Your task to perform on an android device: Open notification settings Image 0: 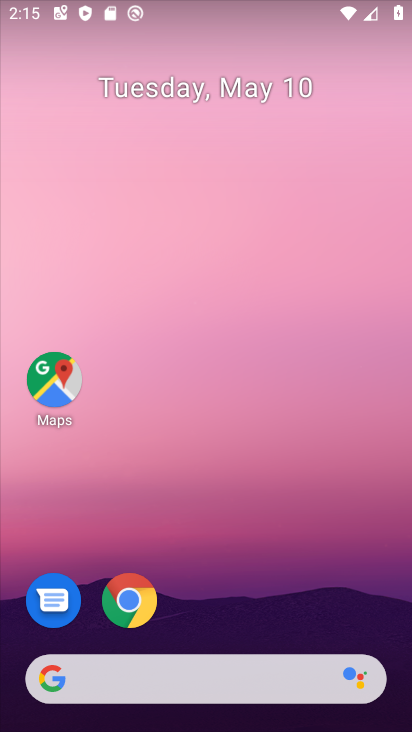
Step 0: drag from (226, 618) to (280, 167)
Your task to perform on an android device: Open notification settings Image 1: 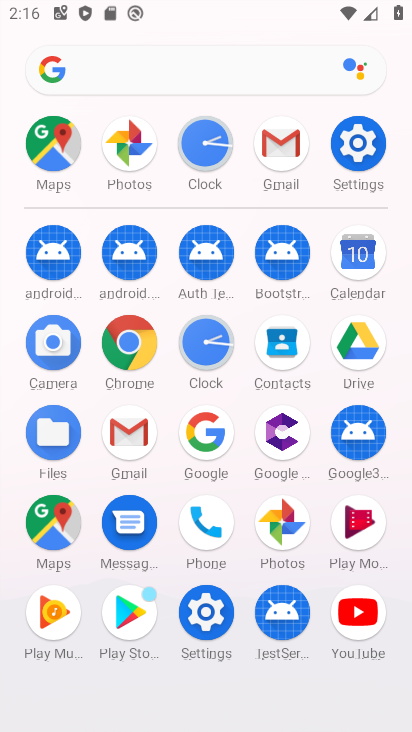
Step 1: click (374, 154)
Your task to perform on an android device: Open notification settings Image 2: 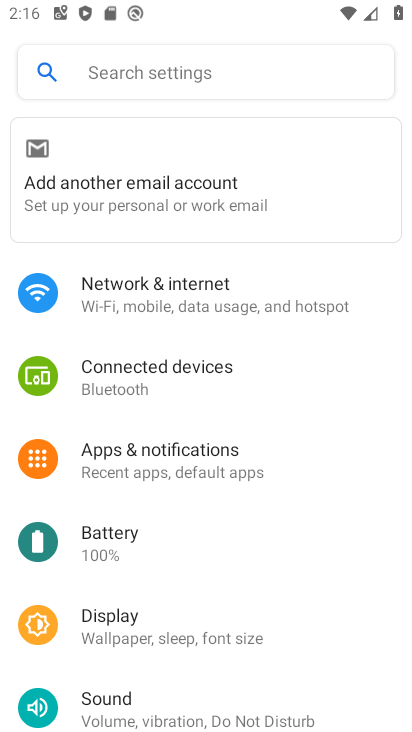
Step 2: drag from (141, 560) to (159, 390)
Your task to perform on an android device: Open notification settings Image 3: 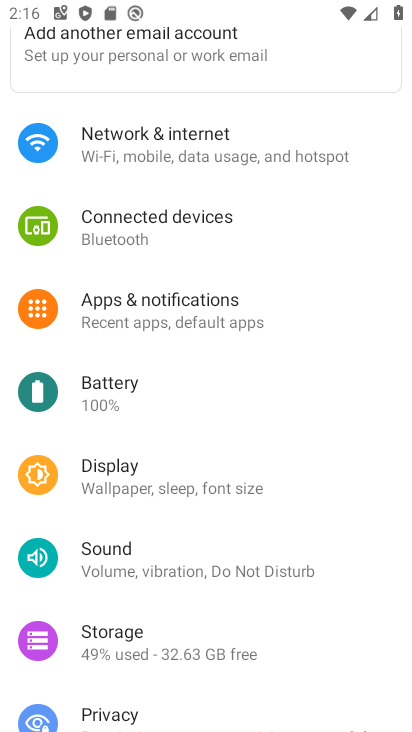
Step 3: click (205, 332)
Your task to perform on an android device: Open notification settings Image 4: 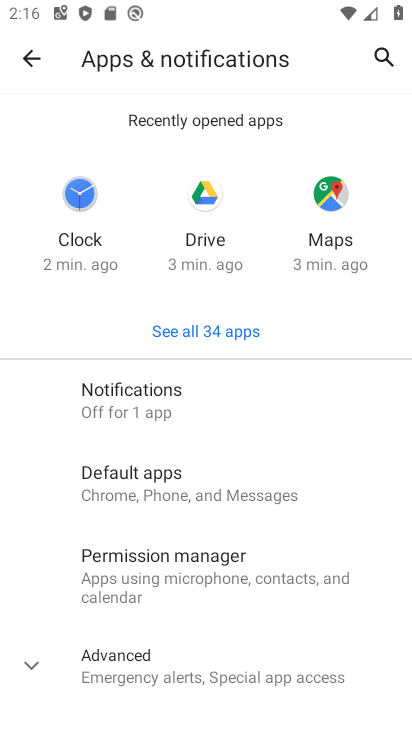
Step 4: click (189, 404)
Your task to perform on an android device: Open notification settings Image 5: 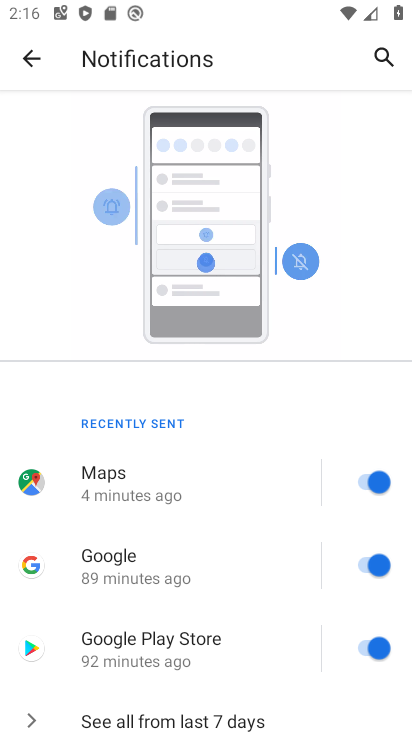
Step 5: task complete